Your task to perform on an android device: find photos in the google photos app Image 0: 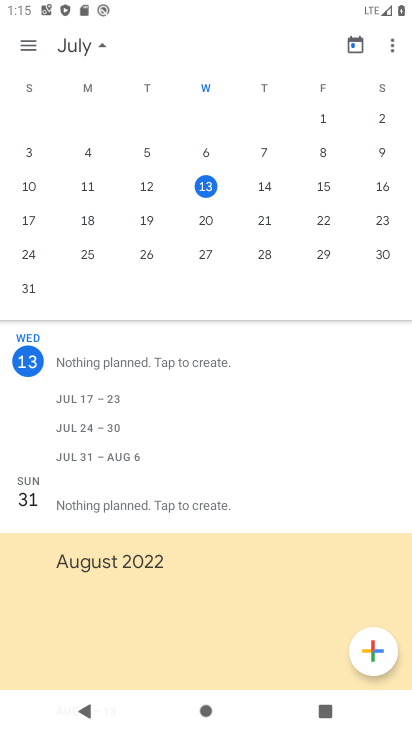
Step 0: drag from (385, 619) to (349, 170)
Your task to perform on an android device: find photos in the google photos app Image 1: 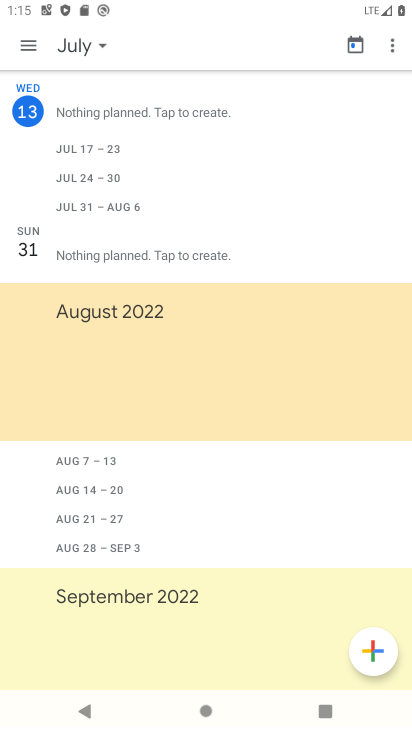
Step 1: press home button
Your task to perform on an android device: find photos in the google photos app Image 2: 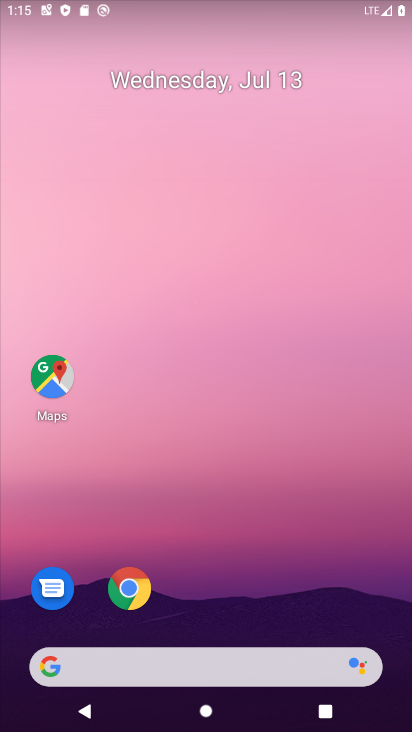
Step 2: drag from (394, 693) to (350, 204)
Your task to perform on an android device: find photos in the google photos app Image 3: 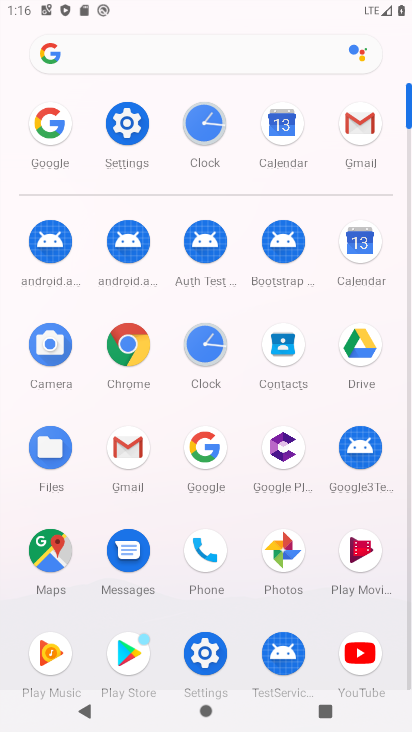
Step 3: click (285, 557)
Your task to perform on an android device: find photos in the google photos app Image 4: 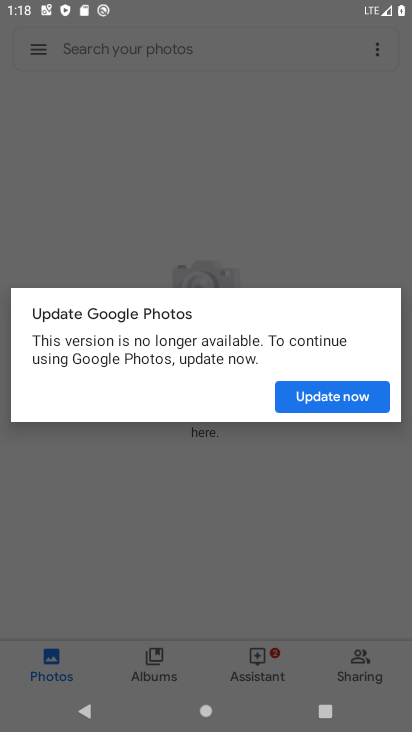
Step 4: task complete